Your task to perform on an android device: Turn on the flashlight Image 0: 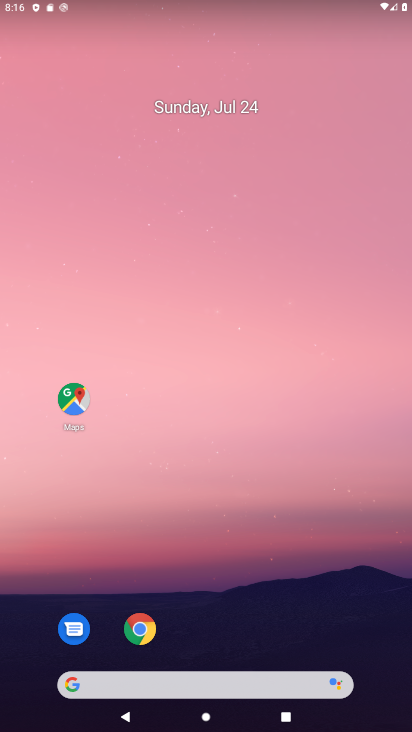
Step 0: drag from (240, 9) to (231, 487)
Your task to perform on an android device: Turn on the flashlight Image 1: 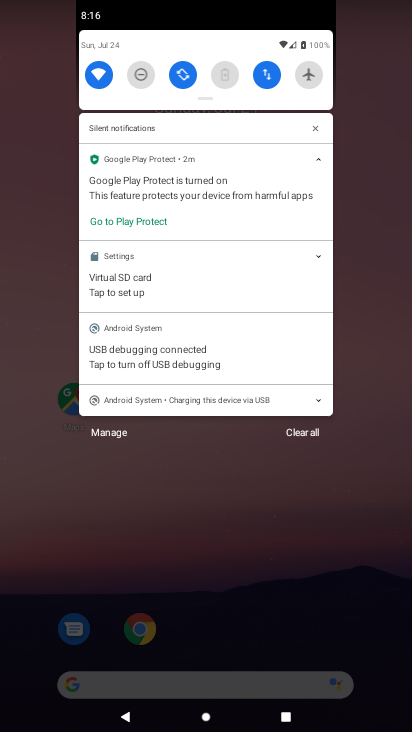
Step 1: task complete